Your task to perform on an android device: Open the calendar app, open the side menu, and click the "Day" option Image 0: 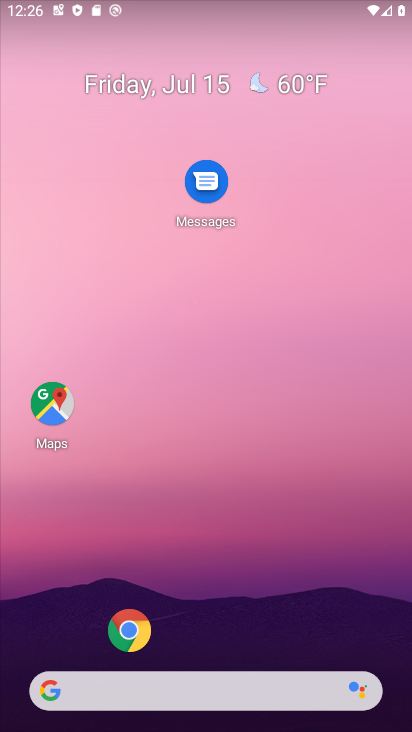
Step 0: drag from (22, 663) to (298, 4)
Your task to perform on an android device: Open the calendar app, open the side menu, and click the "Day" option Image 1: 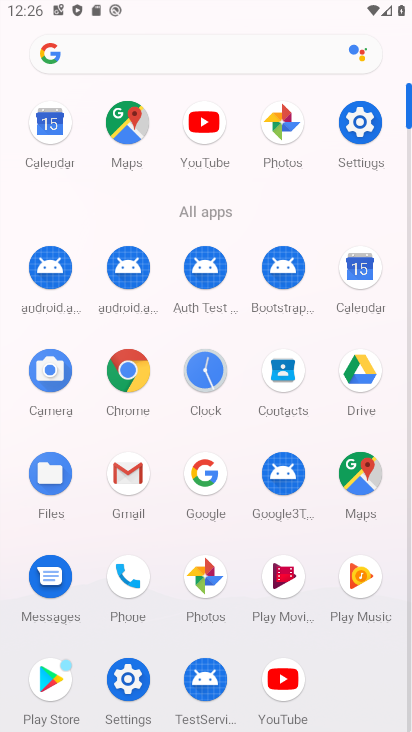
Step 1: click (366, 284)
Your task to perform on an android device: Open the calendar app, open the side menu, and click the "Day" option Image 2: 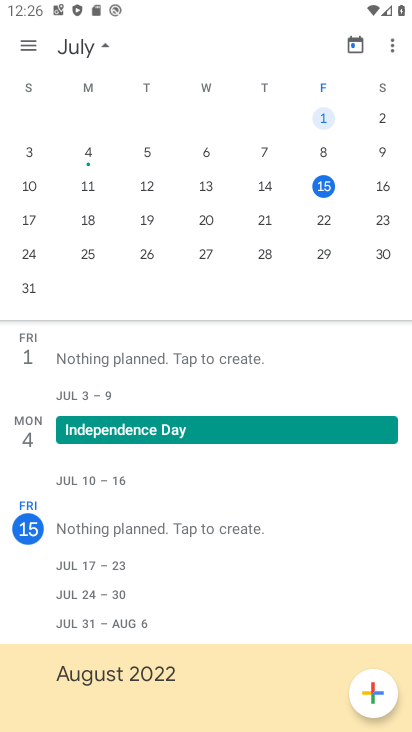
Step 2: click (26, 46)
Your task to perform on an android device: Open the calendar app, open the side menu, and click the "Day" option Image 3: 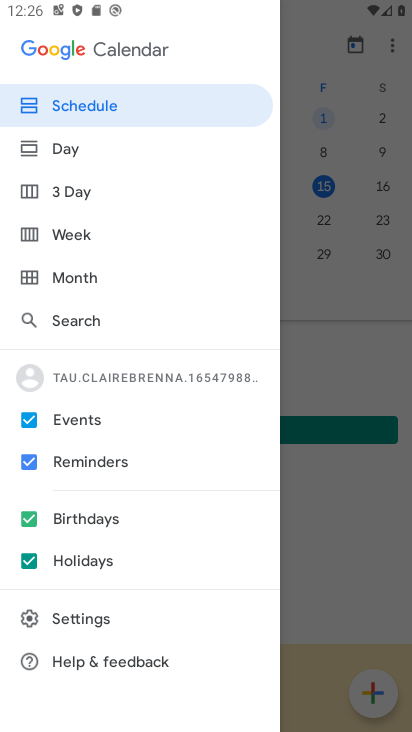
Step 3: click (71, 151)
Your task to perform on an android device: Open the calendar app, open the side menu, and click the "Day" option Image 4: 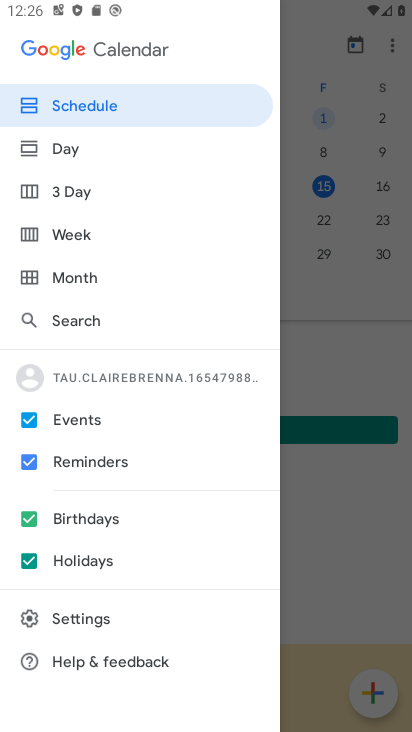
Step 4: click (65, 150)
Your task to perform on an android device: Open the calendar app, open the side menu, and click the "Day" option Image 5: 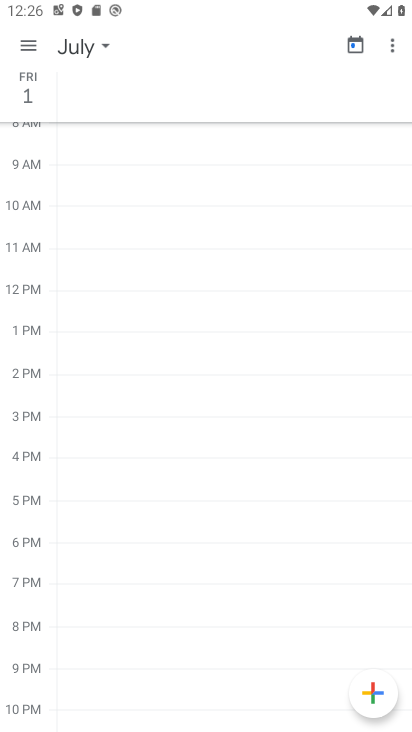
Step 5: task complete